Your task to perform on an android device: install app "TextNow: Call + Text Unlimited" Image 0: 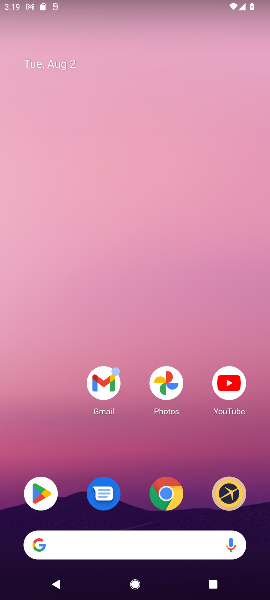
Step 0: click (43, 492)
Your task to perform on an android device: install app "TextNow: Call + Text Unlimited" Image 1: 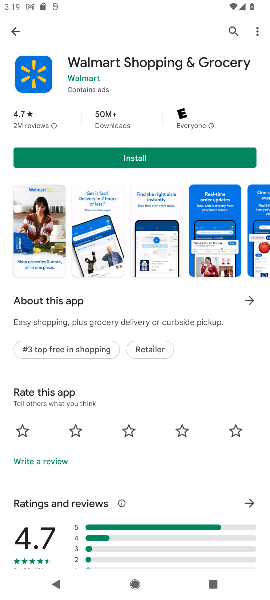
Step 1: click (15, 31)
Your task to perform on an android device: install app "TextNow: Call + Text Unlimited" Image 2: 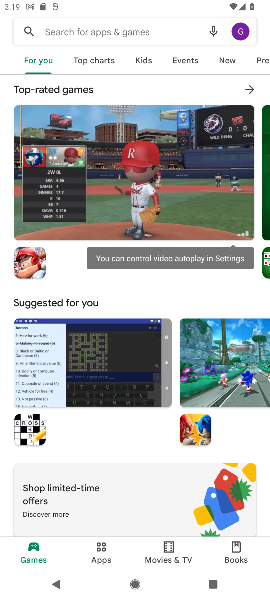
Step 2: click (90, 26)
Your task to perform on an android device: install app "TextNow: Call + Text Unlimited" Image 3: 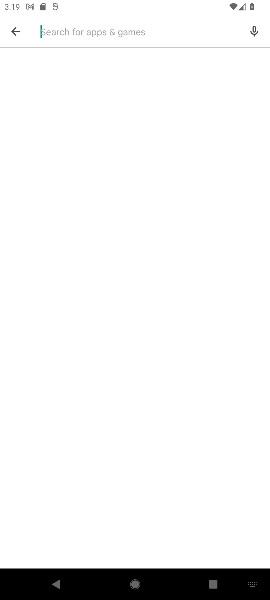
Step 3: type "TextNow: Call + Text Unlimited"
Your task to perform on an android device: install app "TextNow: Call + Text Unlimited" Image 4: 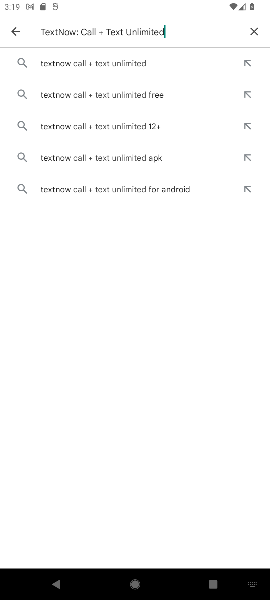
Step 4: click (127, 63)
Your task to perform on an android device: install app "TextNow: Call + Text Unlimited" Image 5: 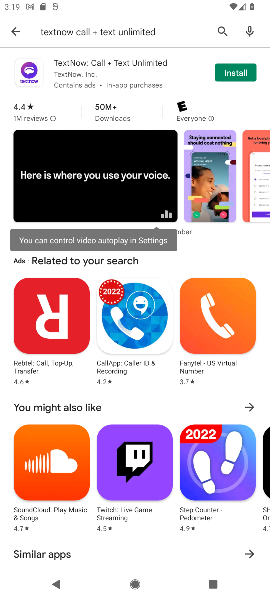
Step 5: click (232, 70)
Your task to perform on an android device: install app "TextNow: Call + Text Unlimited" Image 6: 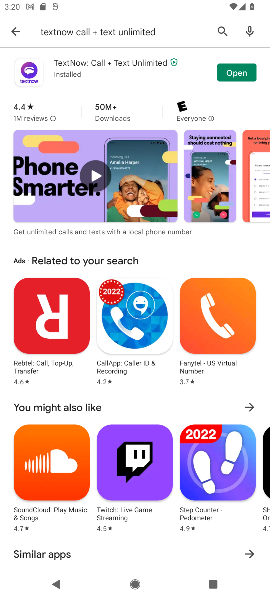
Step 6: task complete